Your task to perform on an android device: change text size in settings app Image 0: 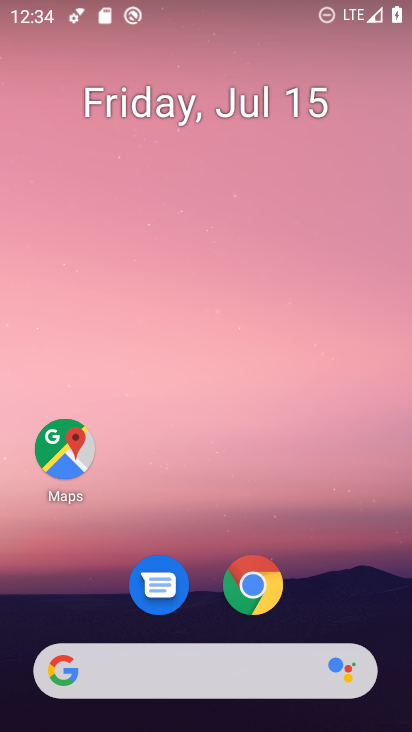
Step 0: drag from (211, 537) to (271, 46)
Your task to perform on an android device: change text size in settings app Image 1: 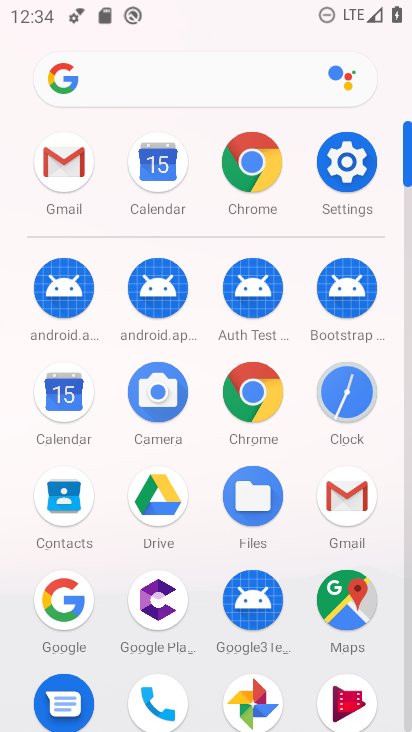
Step 1: drag from (207, 563) to (212, 222)
Your task to perform on an android device: change text size in settings app Image 2: 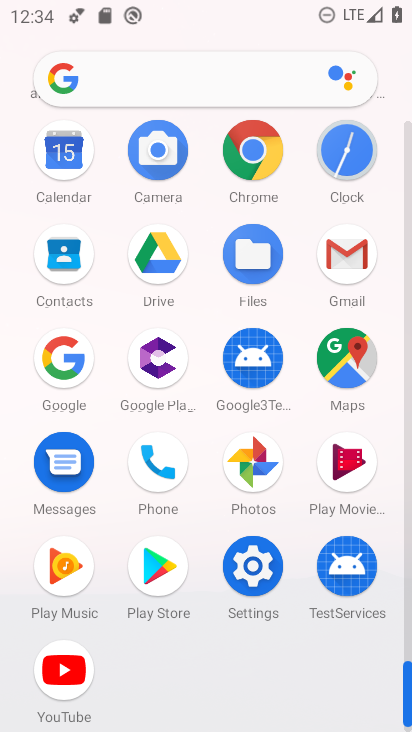
Step 2: click (254, 561)
Your task to perform on an android device: change text size in settings app Image 3: 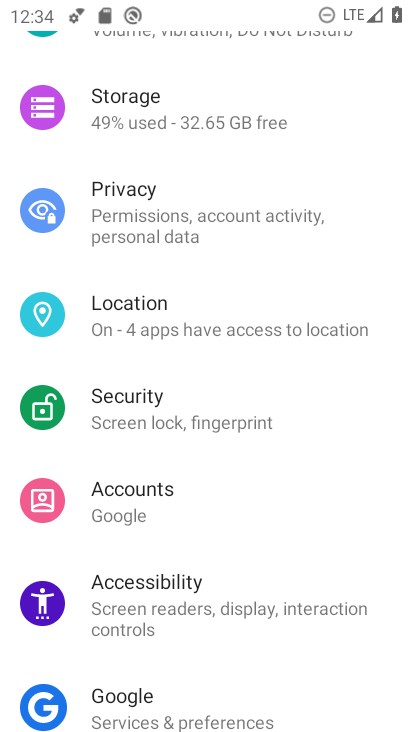
Step 3: drag from (259, 183) to (227, 574)
Your task to perform on an android device: change text size in settings app Image 4: 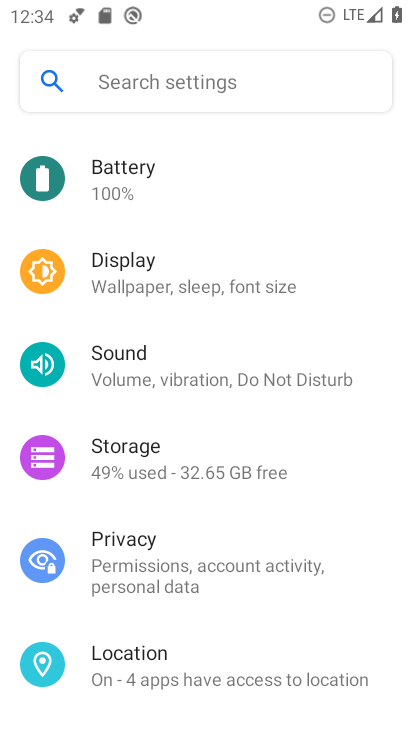
Step 4: click (256, 280)
Your task to perform on an android device: change text size in settings app Image 5: 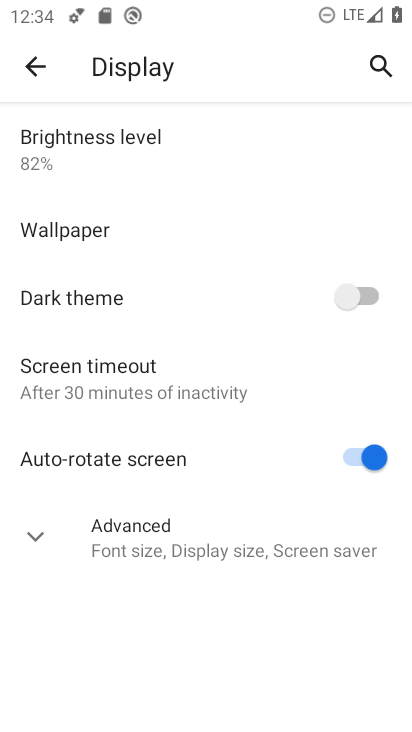
Step 5: click (34, 528)
Your task to perform on an android device: change text size in settings app Image 6: 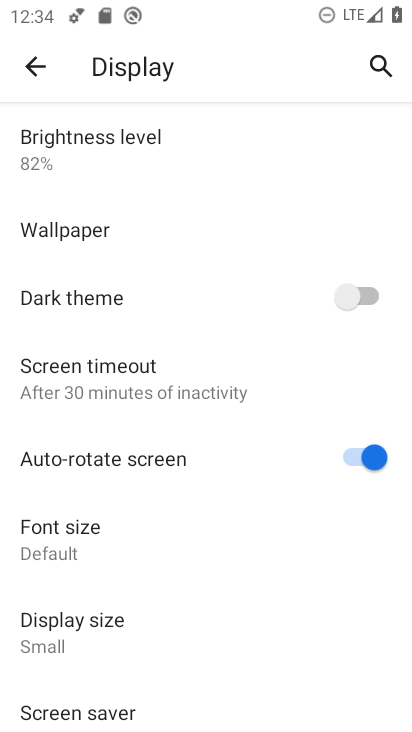
Step 6: click (37, 531)
Your task to perform on an android device: change text size in settings app Image 7: 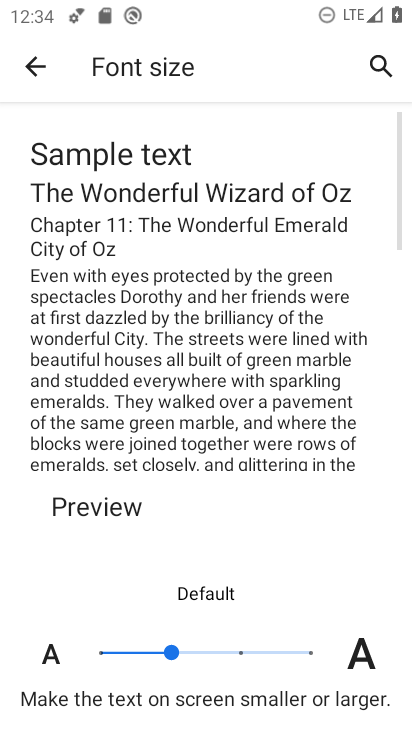
Step 7: click (99, 643)
Your task to perform on an android device: change text size in settings app Image 8: 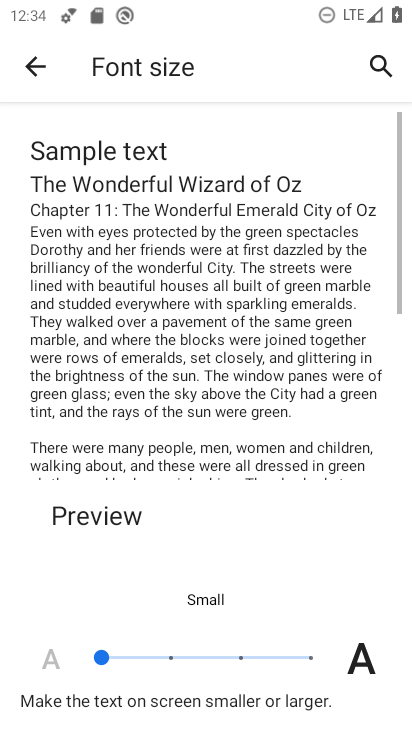
Step 8: click (37, 56)
Your task to perform on an android device: change text size in settings app Image 9: 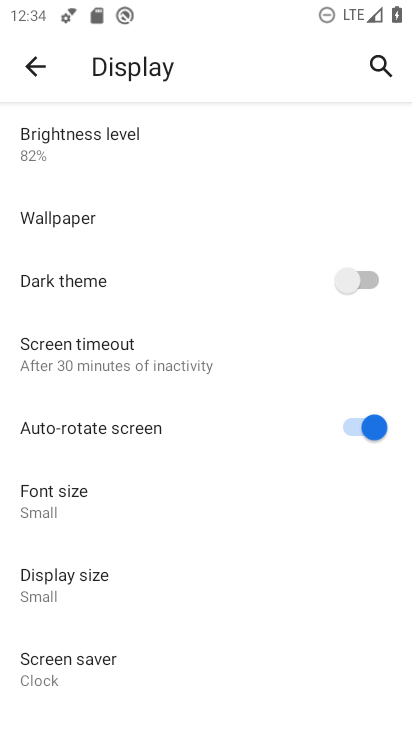
Step 9: task complete